Your task to perform on an android device: Go to Yahoo.com Image 0: 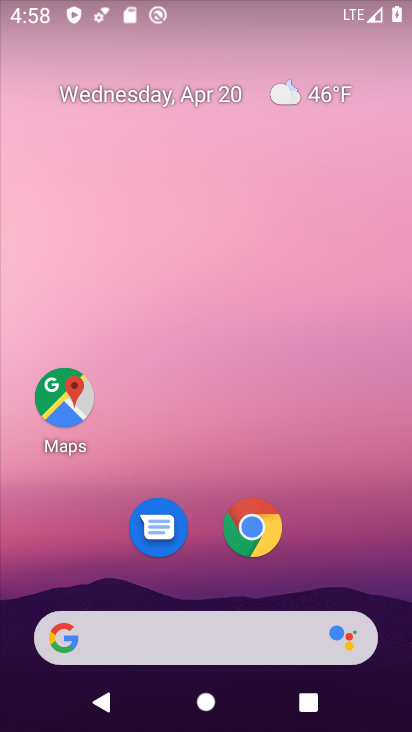
Step 0: click (245, 536)
Your task to perform on an android device: Go to Yahoo.com Image 1: 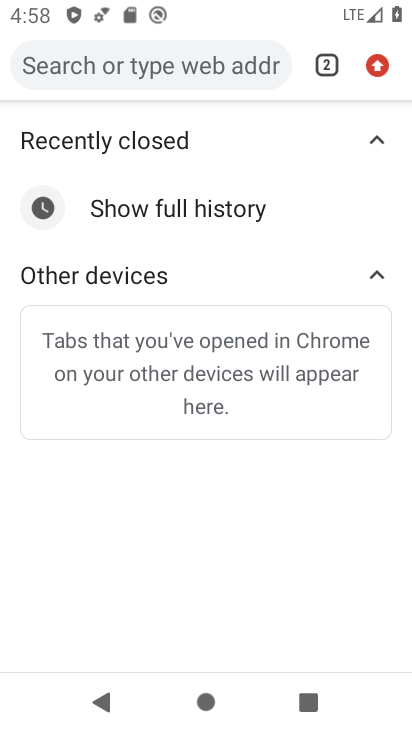
Step 1: click (320, 56)
Your task to perform on an android device: Go to Yahoo.com Image 2: 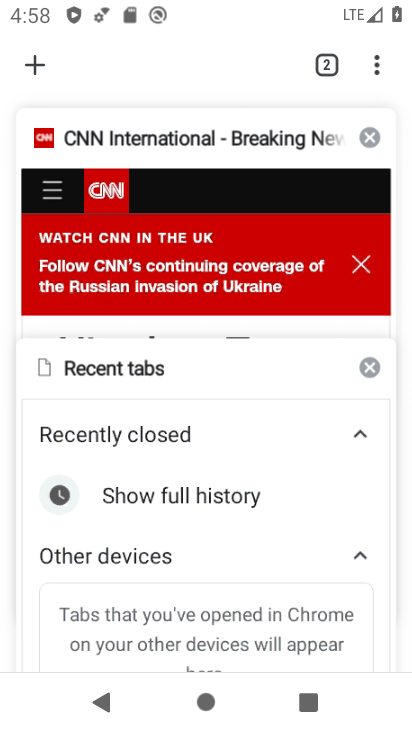
Step 2: click (29, 61)
Your task to perform on an android device: Go to Yahoo.com Image 3: 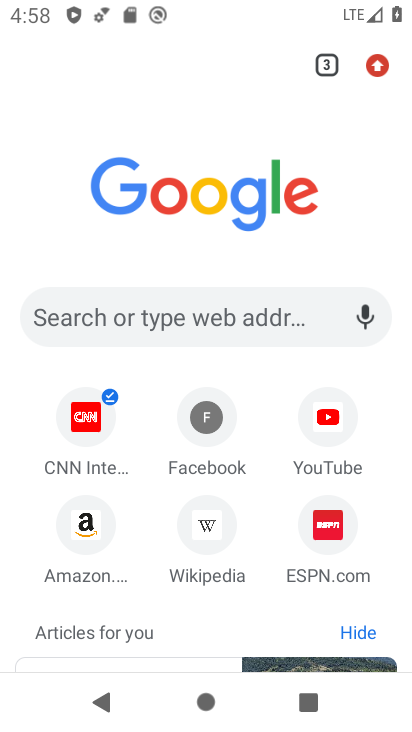
Step 3: click (164, 314)
Your task to perform on an android device: Go to Yahoo.com Image 4: 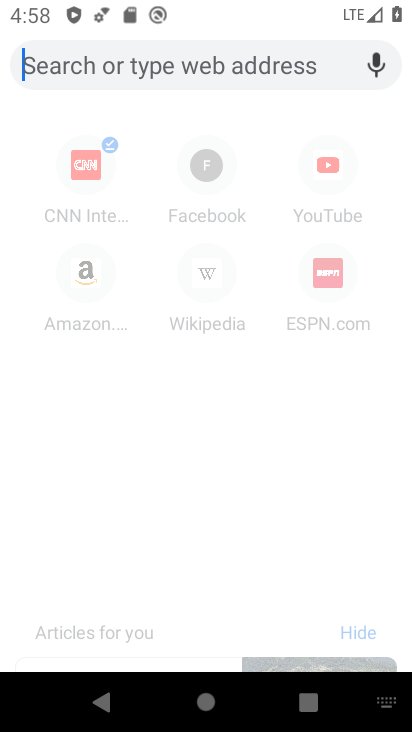
Step 4: type "yahoo.com"
Your task to perform on an android device: Go to Yahoo.com Image 5: 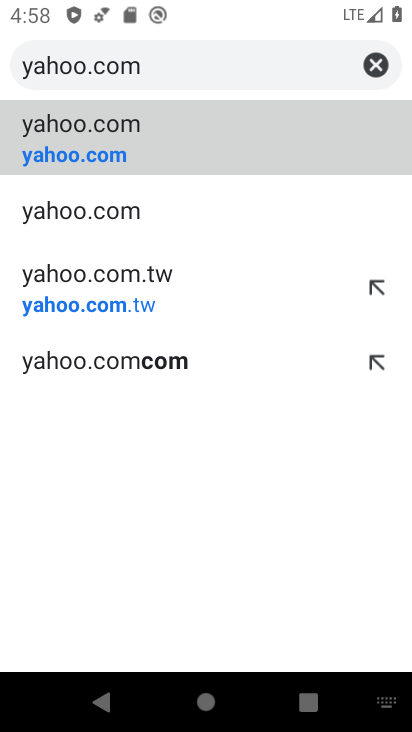
Step 5: click (108, 146)
Your task to perform on an android device: Go to Yahoo.com Image 6: 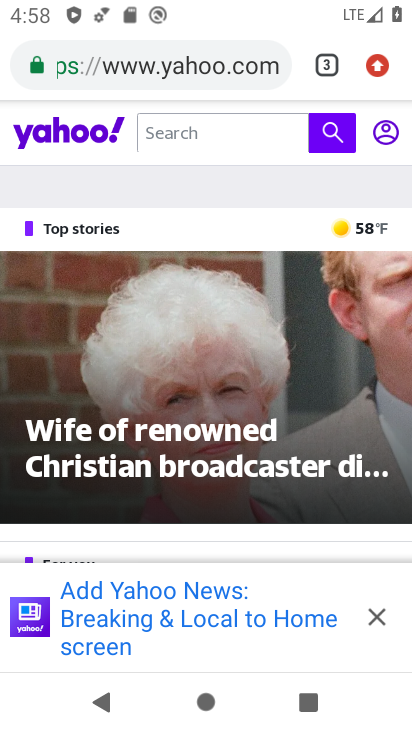
Step 6: task complete